Your task to perform on an android device: Open Yahoo.com Image 0: 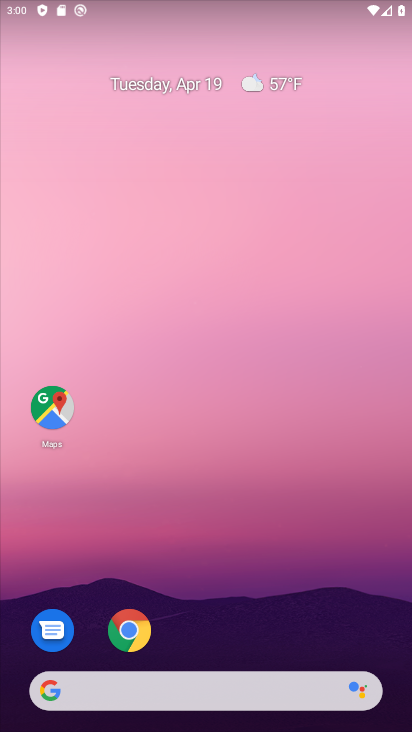
Step 0: click (185, 689)
Your task to perform on an android device: Open Yahoo.com Image 1: 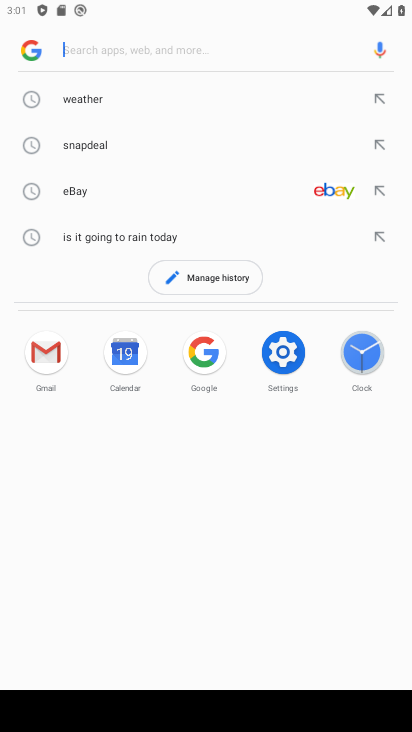
Step 1: type "Yahoo.com"
Your task to perform on an android device: Open Yahoo.com Image 2: 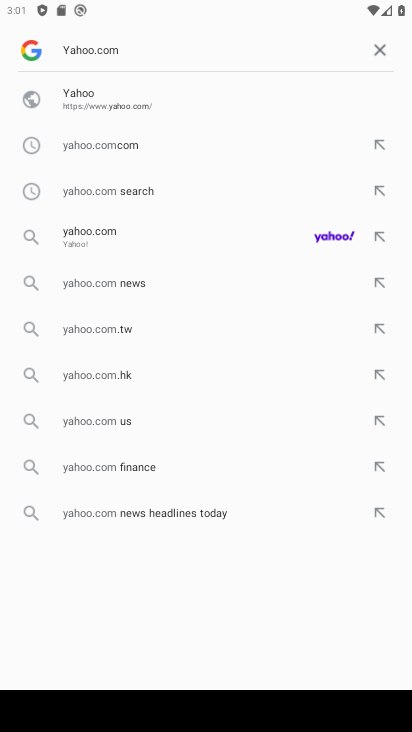
Step 2: click (124, 107)
Your task to perform on an android device: Open Yahoo.com Image 3: 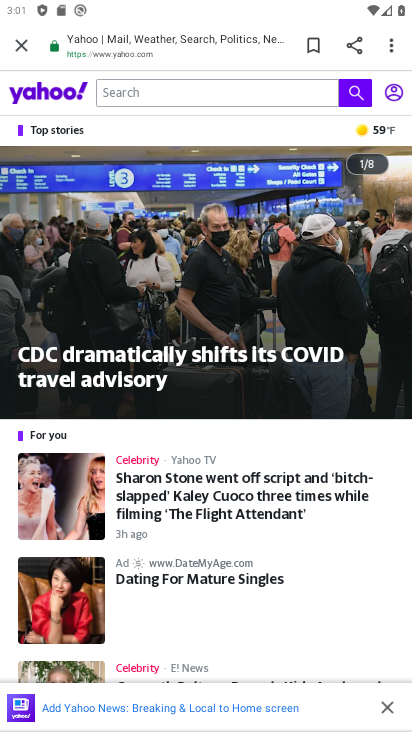
Step 3: task complete